Your task to perform on an android device: open chrome privacy settings Image 0: 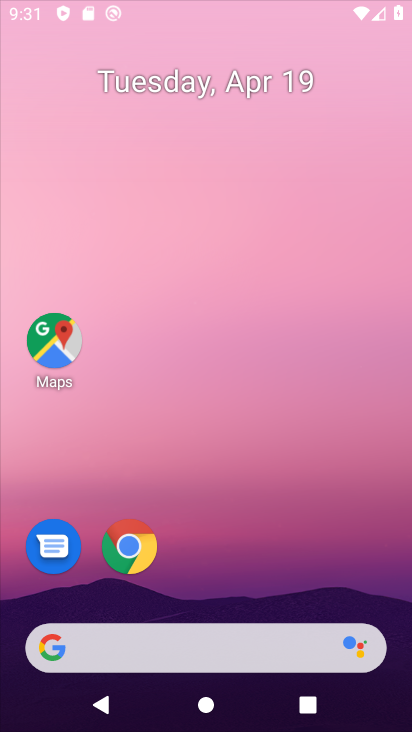
Step 0: press home button
Your task to perform on an android device: open chrome privacy settings Image 1: 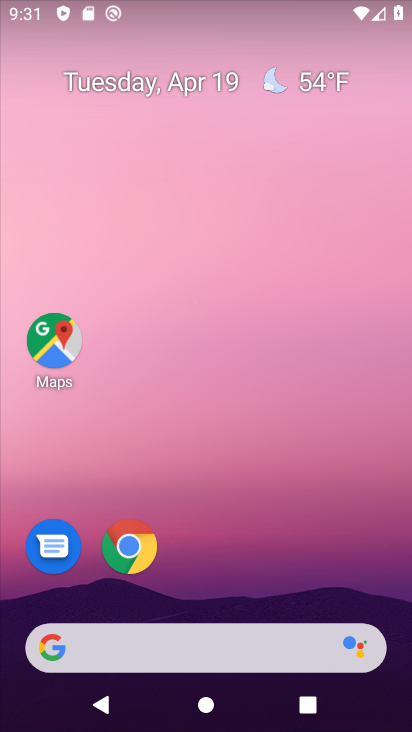
Step 1: click (134, 548)
Your task to perform on an android device: open chrome privacy settings Image 2: 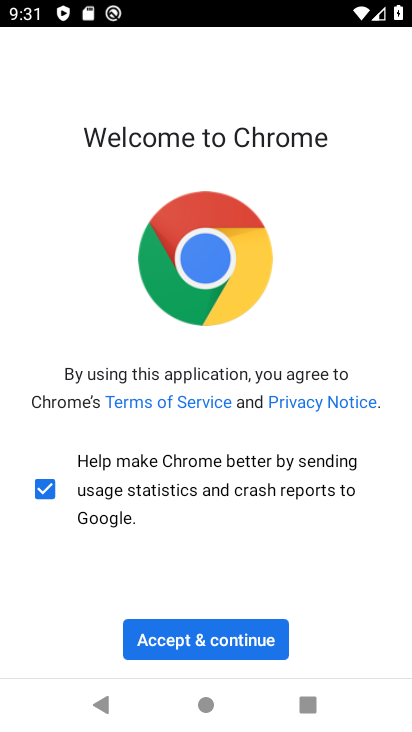
Step 2: click (199, 648)
Your task to perform on an android device: open chrome privacy settings Image 3: 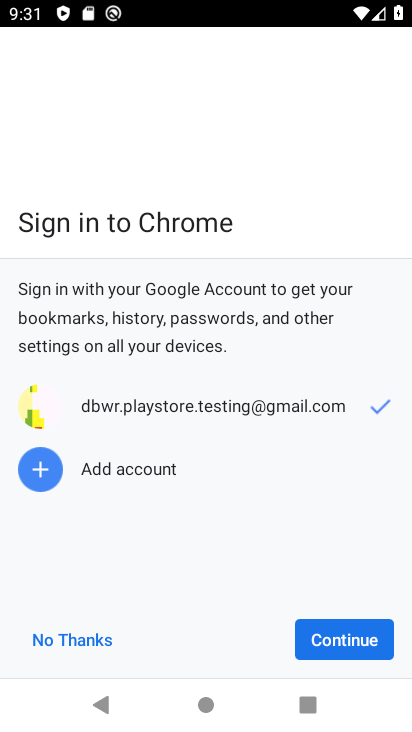
Step 3: click (341, 634)
Your task to perform on an android device: open chrome privacy settings Image 4: 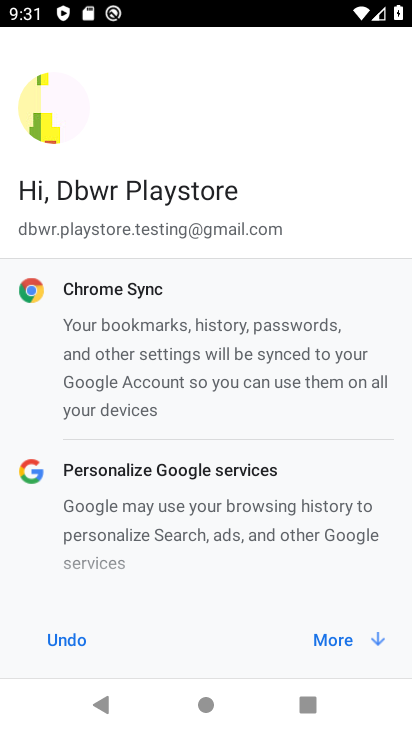
Step 4: click (341, 634)
Your task to perform on an android device: open chrome privacy settings Image 5: 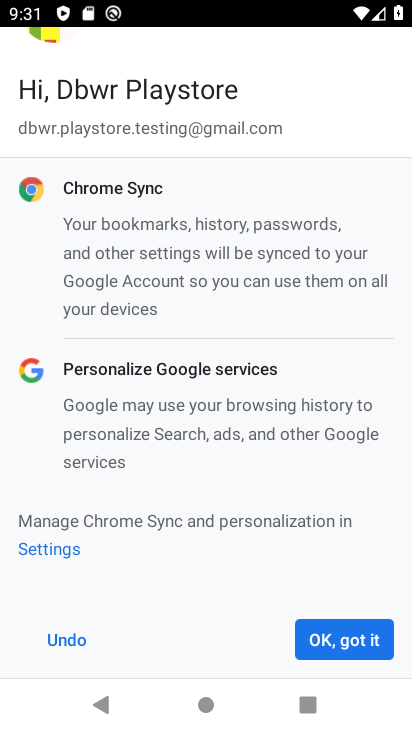
Step 5: click (341, 642)
Your task to perform on an android device: open chrome privacy settings Image 6: 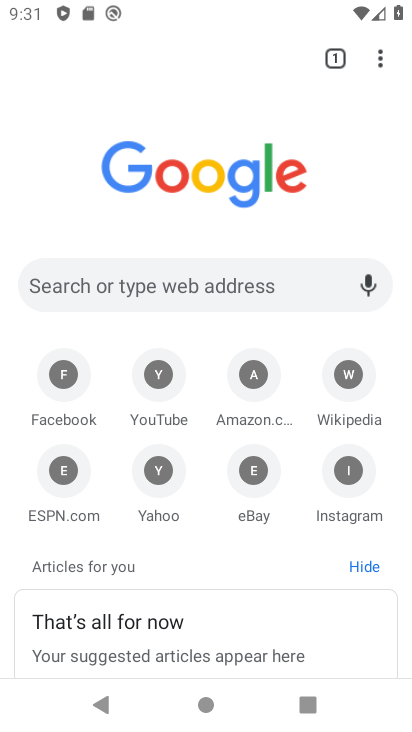
Step 6: click (383, 52)
Your task to perform on an android device: open chrome privacy settings Image 7: 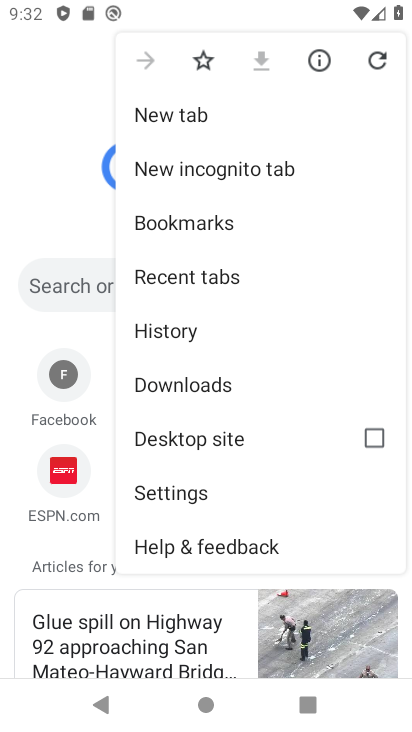
Step 7: click (218, 488)
Your task to perform on an android device: open chrome privacy settings Image 8: 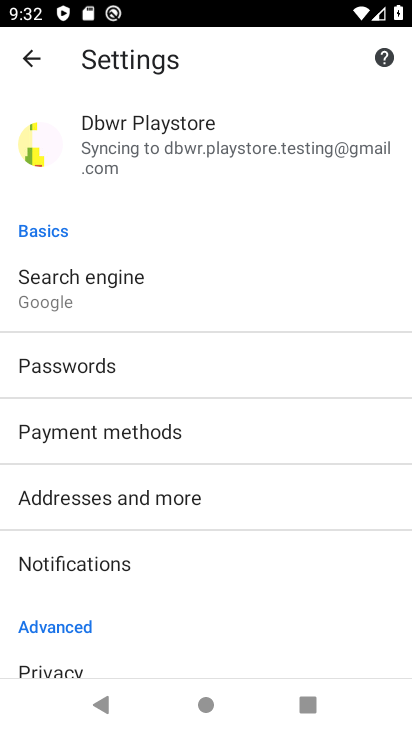
Step 8: click (66, 674)
Your task to perform on an android device: open chrome privacy settings Image 9: 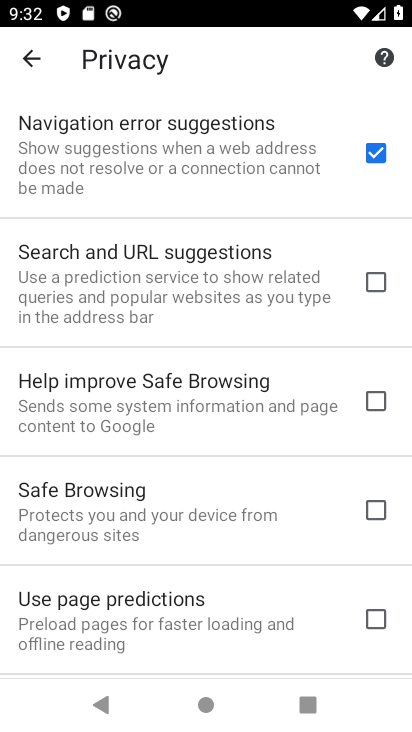
Step 9: task complete